Your task to perform on an android device: turn notification dots off Image 0: 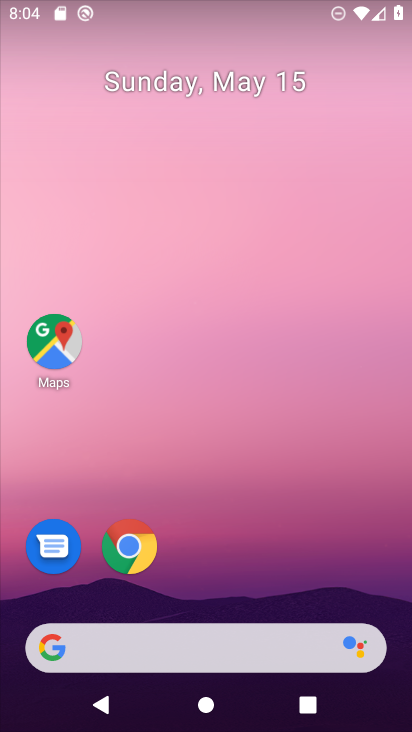
Step 0: drag from (310, 524) to (287, 84)
Your task to perform on an android device: turn notification dots off Image 1: 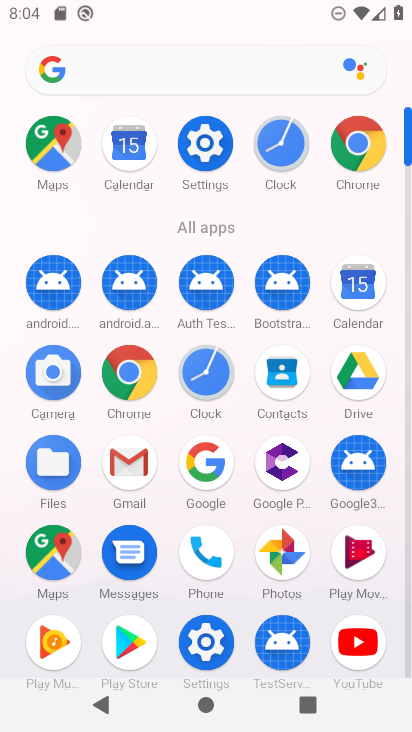
Step 1: click (203, 132)
Your task to perform on an android device: turn notification dots off Image 2: 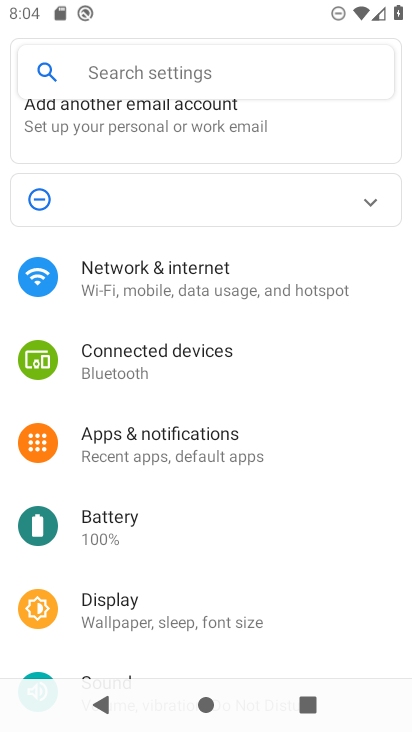
Step 2: click (174, 437)
Your task to perform on an android device: turn notification dots off Image 3: 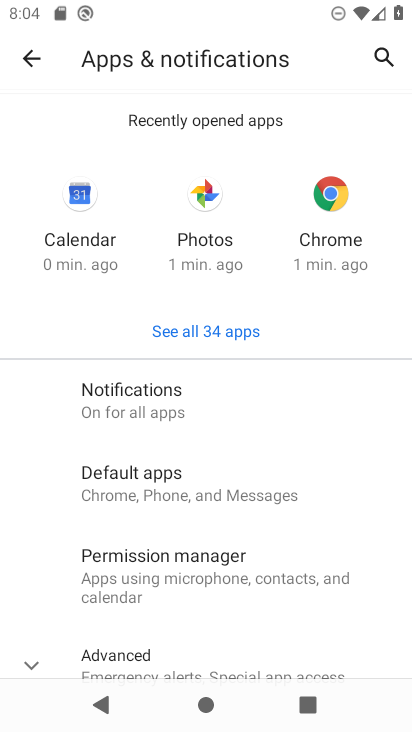
Step 3: click (174, 390)
Your task to perform on an android device: turn notification dots off Image 4: 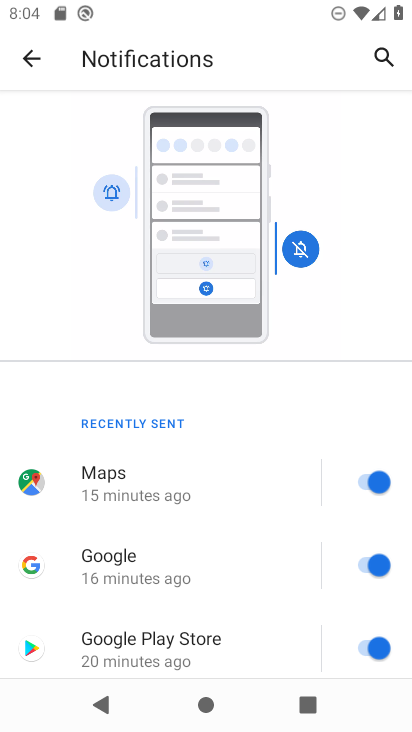
Step 4: drag from (208, 618) to (253, 168)
Your task to perform on an android device: turn notification dots off Image 5: 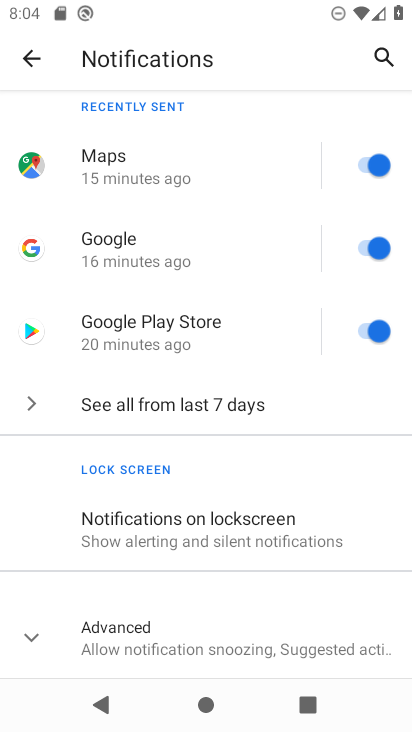
Step 5: click (31, 631)
Your task to perform on an android device: turn notification dots off Image 6: 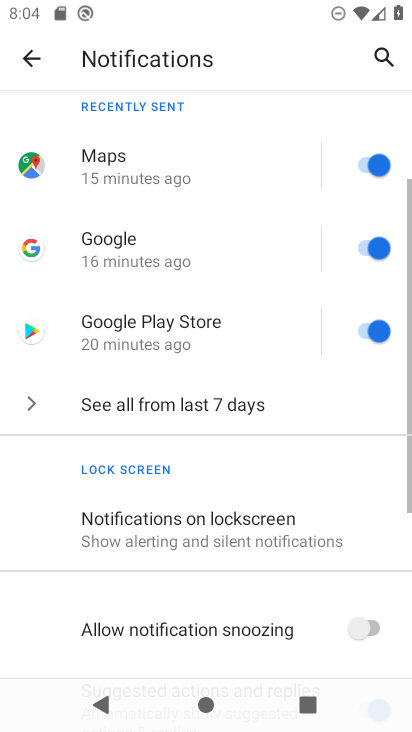
Step 6: drag from (204, 580) to (230, 224)
Your task to perform on an android device: turn notification dots off Image 7: 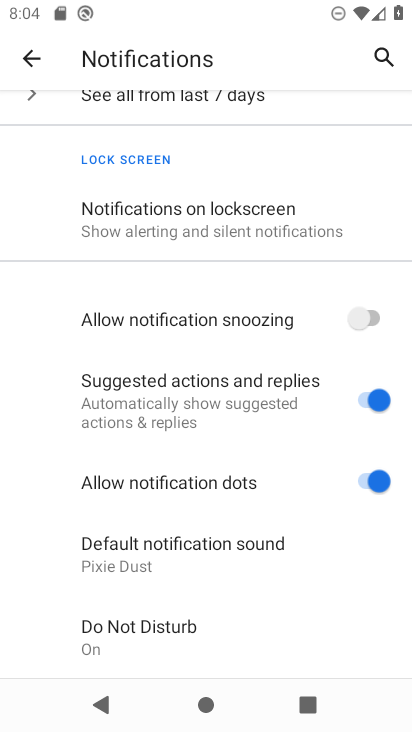
Step 7: click (367, 473)
Your task to perform on an android device: turn notification dots off Image 8: 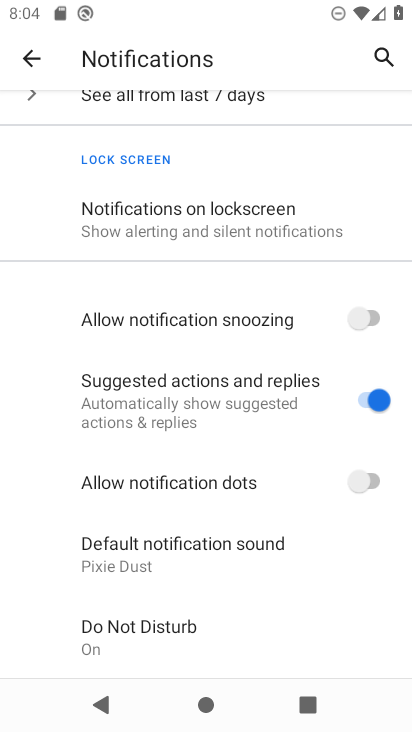
Step 8: task complete